Your task to perform on an android device: turn on wifi Image 0: 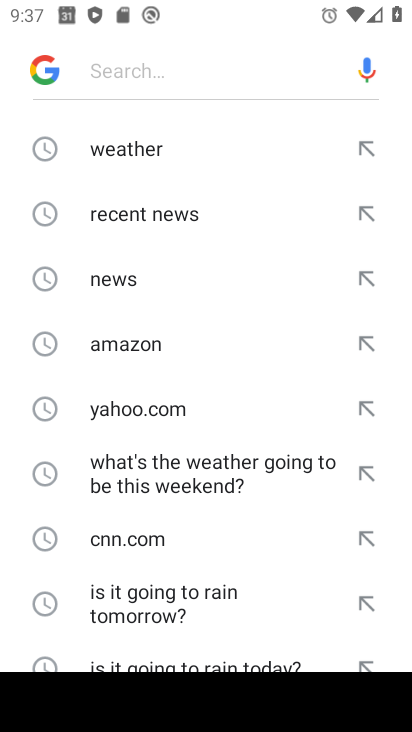
Step 0: press home button
Your task to perform on an android device: turn on wifi Image 1: 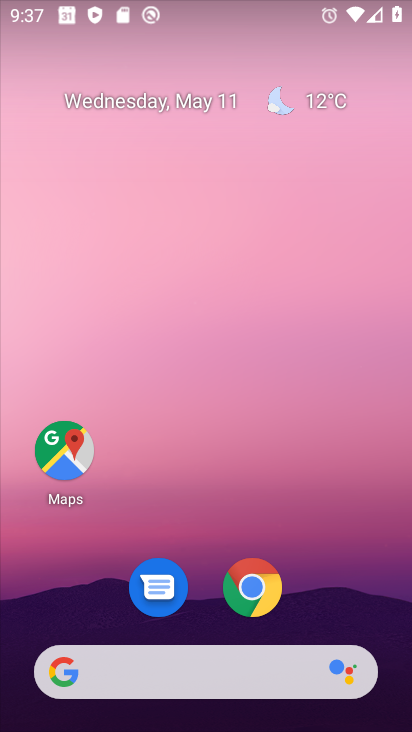
Step 1: drag from (361, 608) to (361, 51)
Your task to perform on an android device: turn on wifi Image 2: 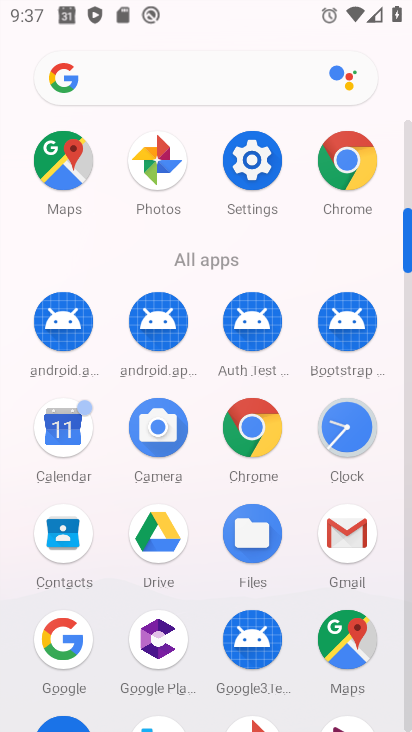
Step 2: click (256, 165)
Your task to perform on an android device: turn on wifi Image 3: 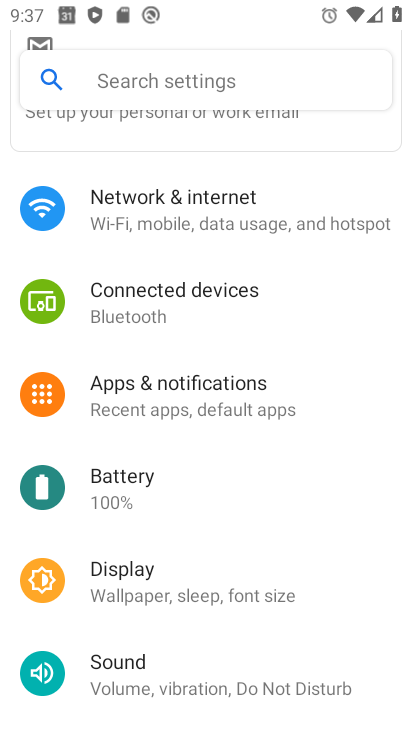
Step 3: click (221, 205)
Your task to perform on an android device: turn on wifi Image 4: 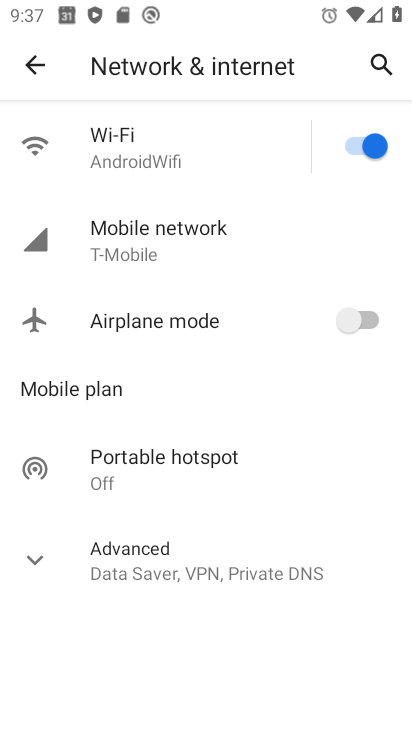
Step 4: task complete